Your task to perform on an android device: turn on notifications settings in the gmail app Image 0: 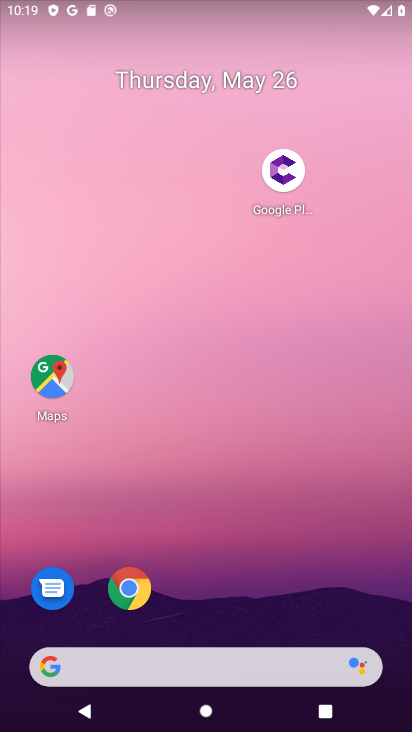
Step 0: drag from (254, 678) to (167, 192)
Your task to perform on an android device: turn on notifications settings in the gmail app Image 1: 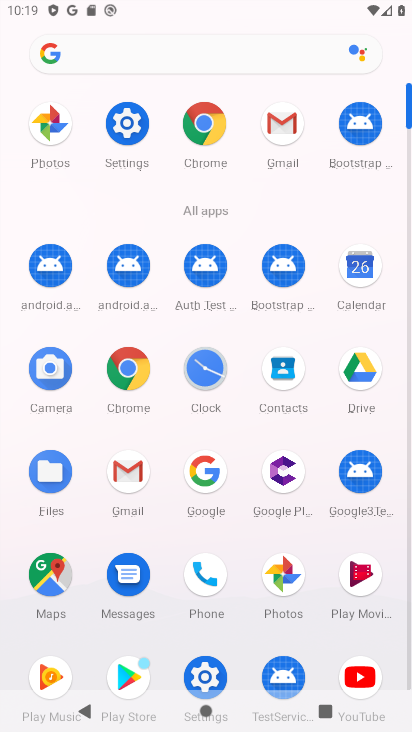
Step 1: click (101, 485)
Your task to perform on an android device: turn on notifications settings in the gmail app Image 2: 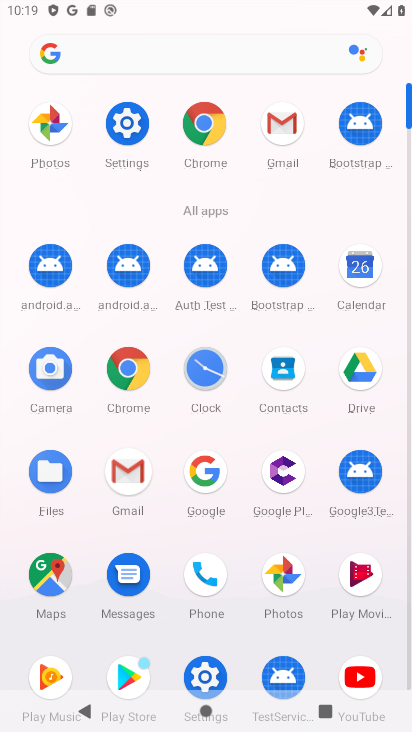
Step 2: click (118, 478)
Your task to perform on an android device: turn on notifications settings in the gmail app Image 3: 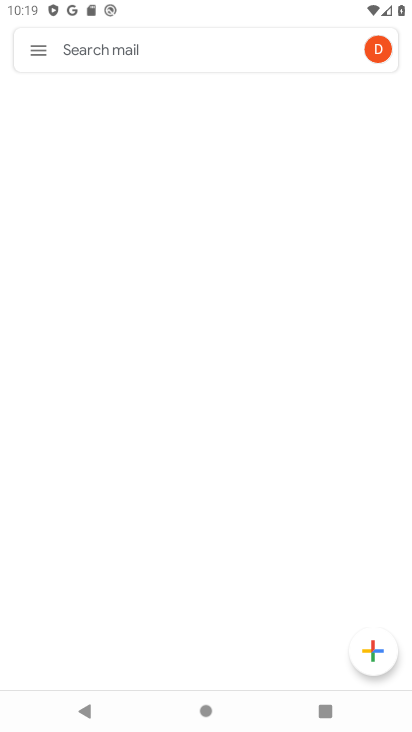
Step 3: click (121, 474)
Your task to perform on an android device: turn on notifications settings in the gmail app Image 4: 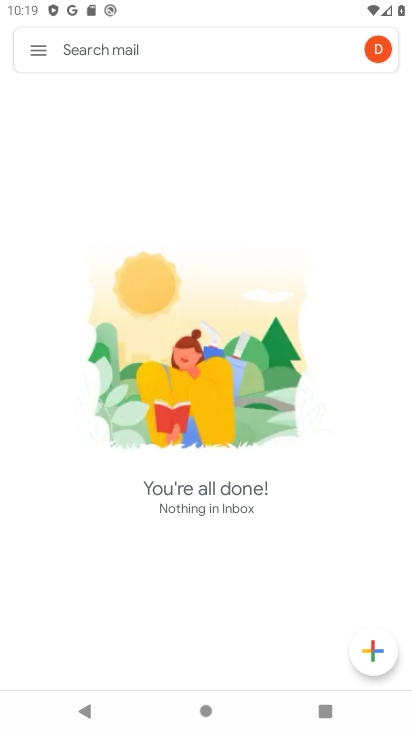
Step 4: click (53, 41)
Your task to perform on an android device: turn on notifications settings in the gmail app Image 5: 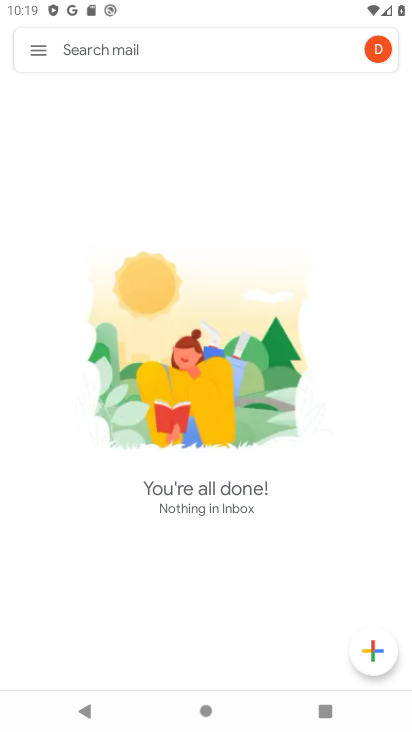
Step 5: click (47, 51)
Your task to perform on an android device: turn on notifications settings in the gmail app Image 6: 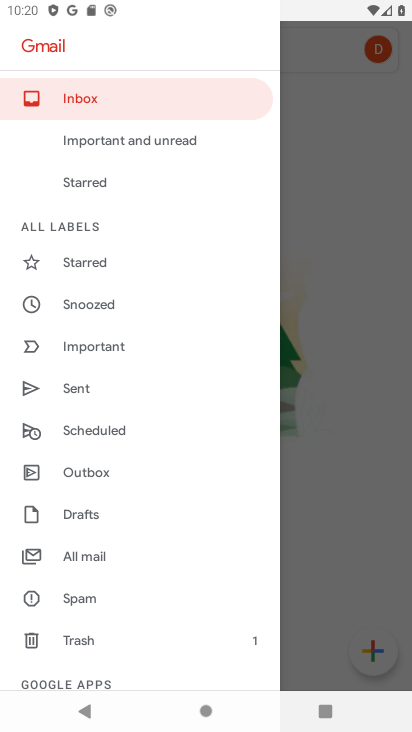
Step 6: drag from (87, 595) to (0, 174)
Your task to perform on an android device: turn on notifications settings in the gmail app Image 7: 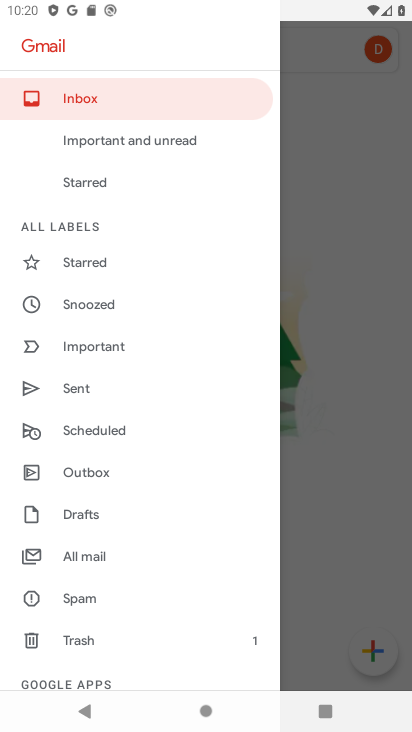
Step 7: drag from (105, 433) to (71, 156)
Your task to perform on an android device: turn on notifications settings in the gmail app Image 8: 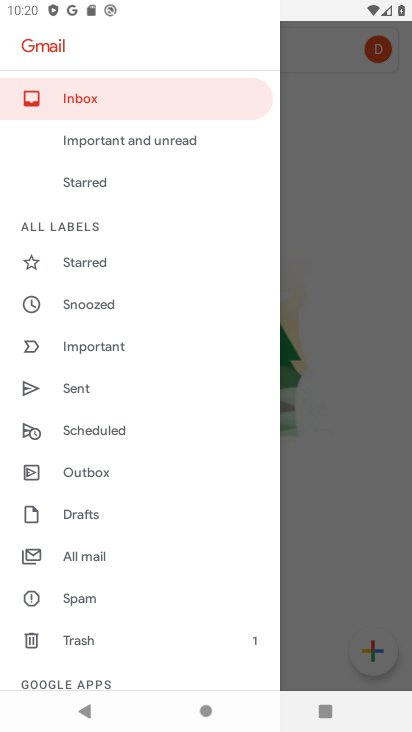
Step 8: drag from (68, 532) to (60, 119)
Your task to perform on an android device: turn on notifications settings in the gmail app Image 9: 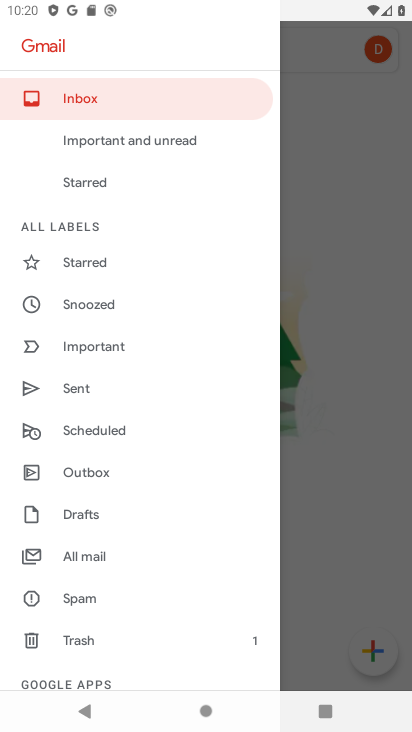
Step 9: drag from (114, 584) to (114, 215)
Your task to perform on an android device: turn on notifications settings in the gmail app Image 10: 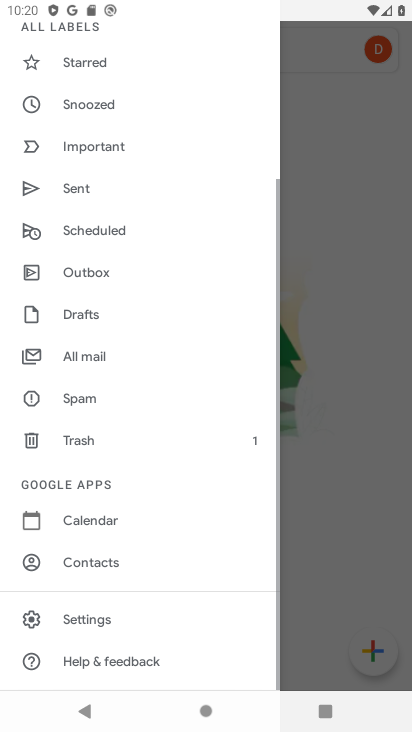
Step 10: drag from (138, 559) to (143, 128)
Your task to perform on an android device: turn on notifications settings in the gmail app Image 11: 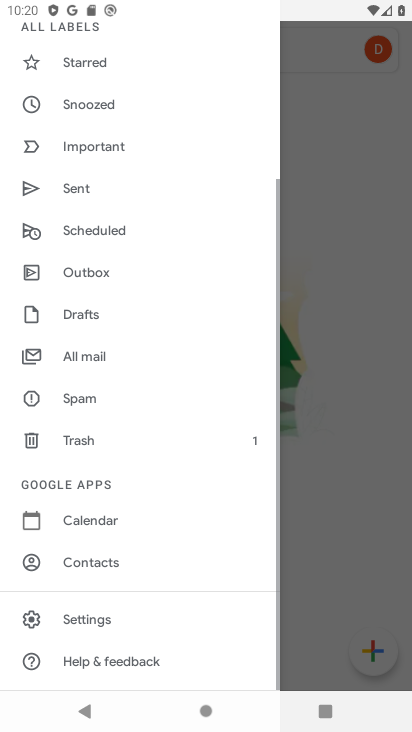
Step 11: click (97, 595)
Your task to perform on an android device: turn on notifications settings in the gmail app Image 12: 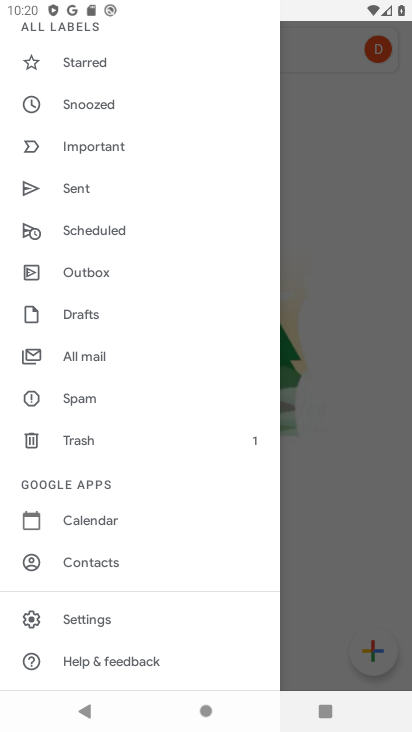
Step 12: click (84, 615)
Your task to perform on an android device: turn on notifications settings in the gmail app Image 13: 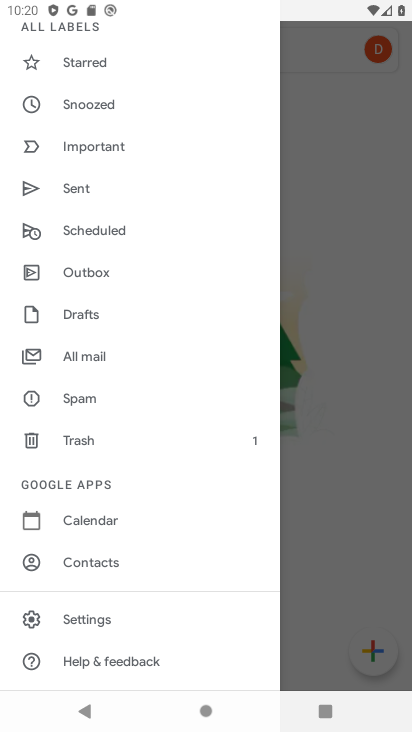
Step 13: click (85, 615)
Your task to perform on an android device: turn on notifications settings in the gmail app Image 14: 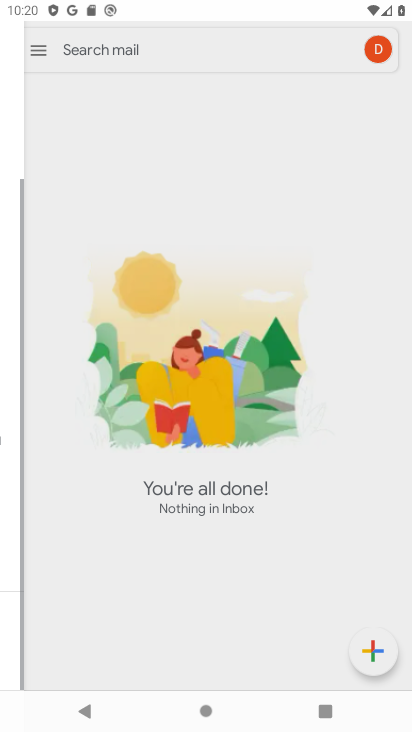
Step 14: click (87, 615)
Your task to perform on an android device: turn on notifications settings in the gmail app Image 15: 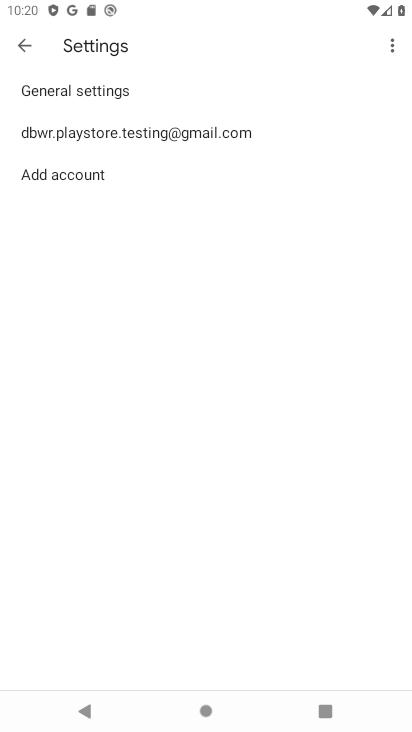
Step 15: click (98, 131)
Your task to perform on an android device: turn on notifications settings in the gmail app Image 16: 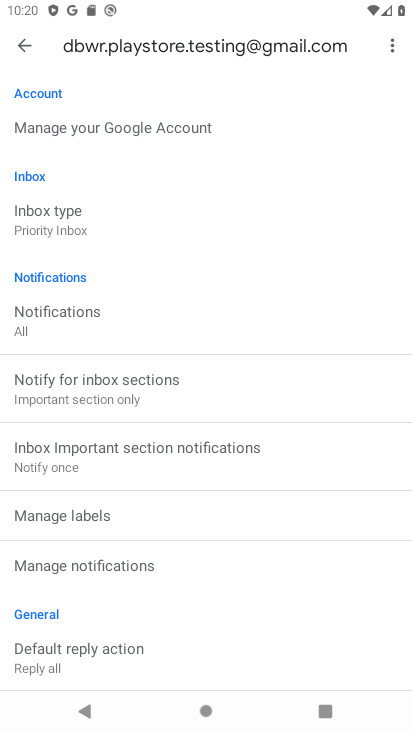
Step 16: click (61, 304)
Your task to perform on an android device: turn on notifications settings in the gmail app Image 17: 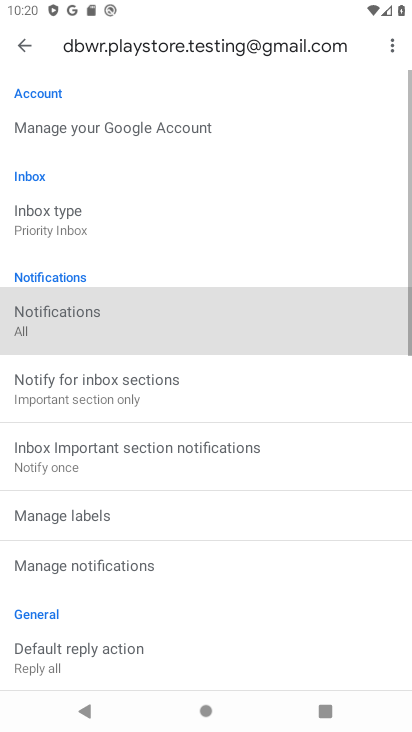
Step 17: click (61, 304)
Your task to perform on an android device: turn on notifications settings in the gmail app Image 18: 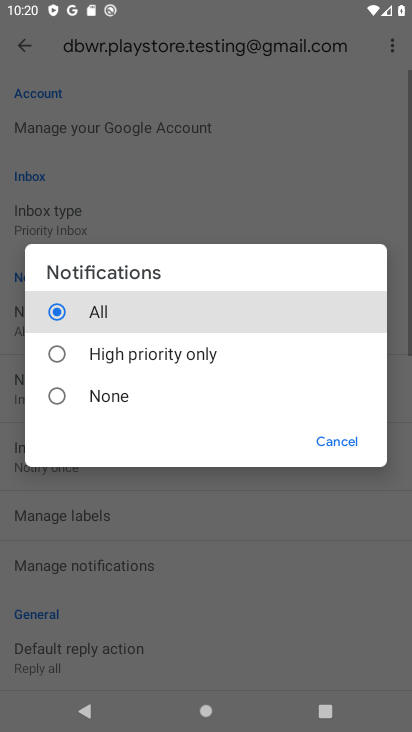
Step 18: click (61, 304)
Your task to perform on an android device: turn on notifications settings in the gmail app Image 19: 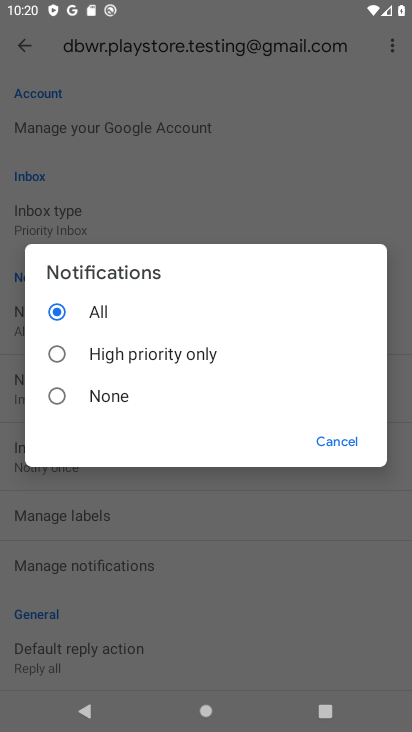
Step 19: click (357, 443)
Your task to perform on an android device: turn on notifications settings in the gmail app Image 20: 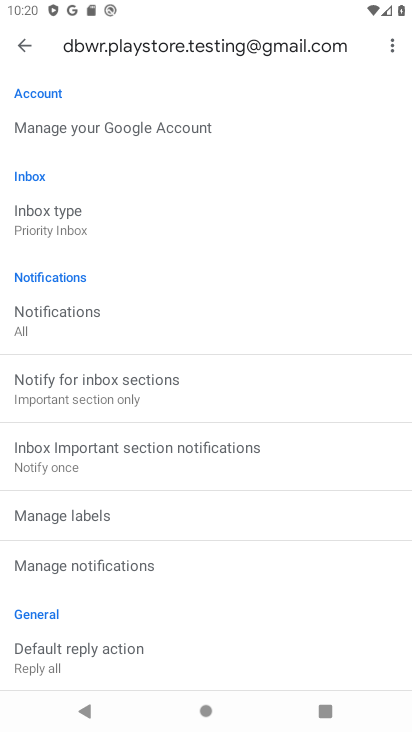
Step 20: task complete